Your task to perform on an android device: open app "Microsoft Excel" (install if not already installed), go to login, and select forgot password Image 0: 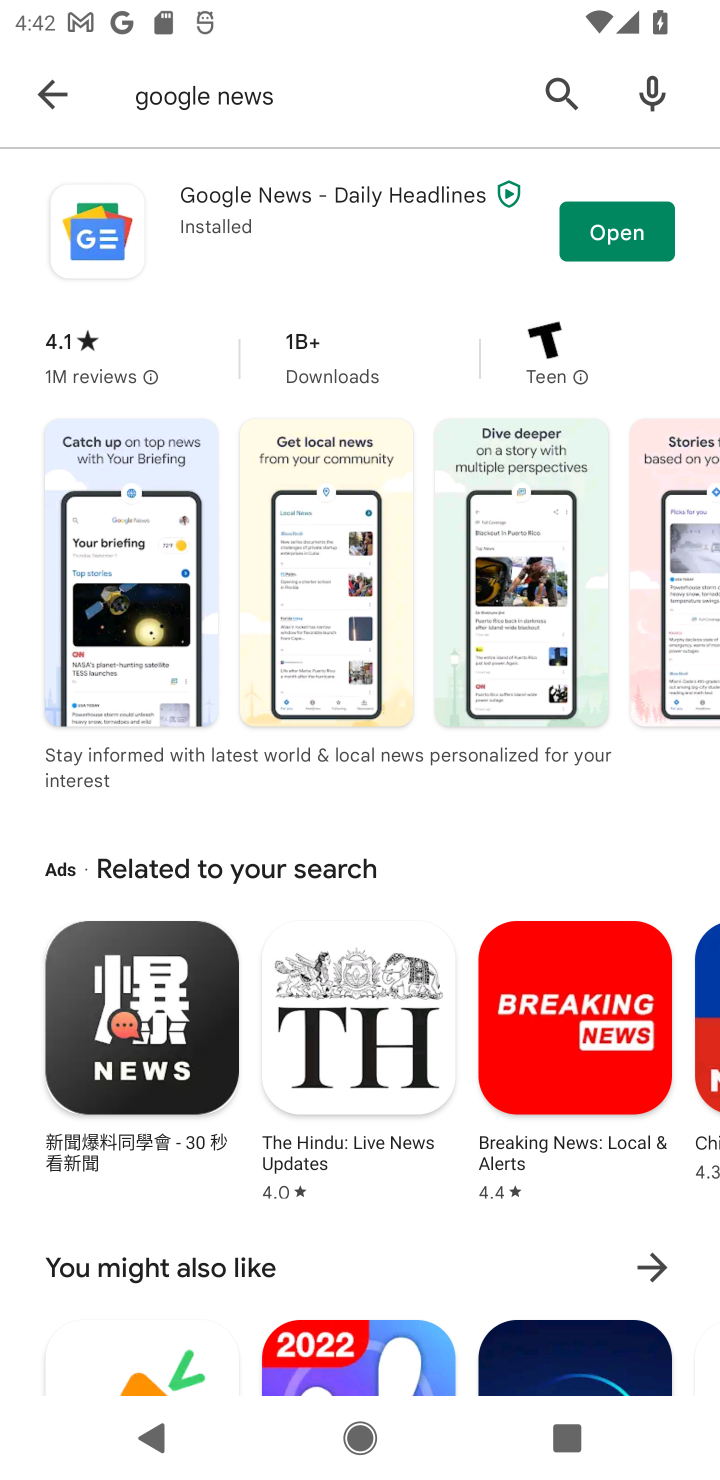
Step 0: press home button
Your task to perform on an android device: open app "Microsoft Excel" (install if not already installed), go to login, and select forgot password Image 1: 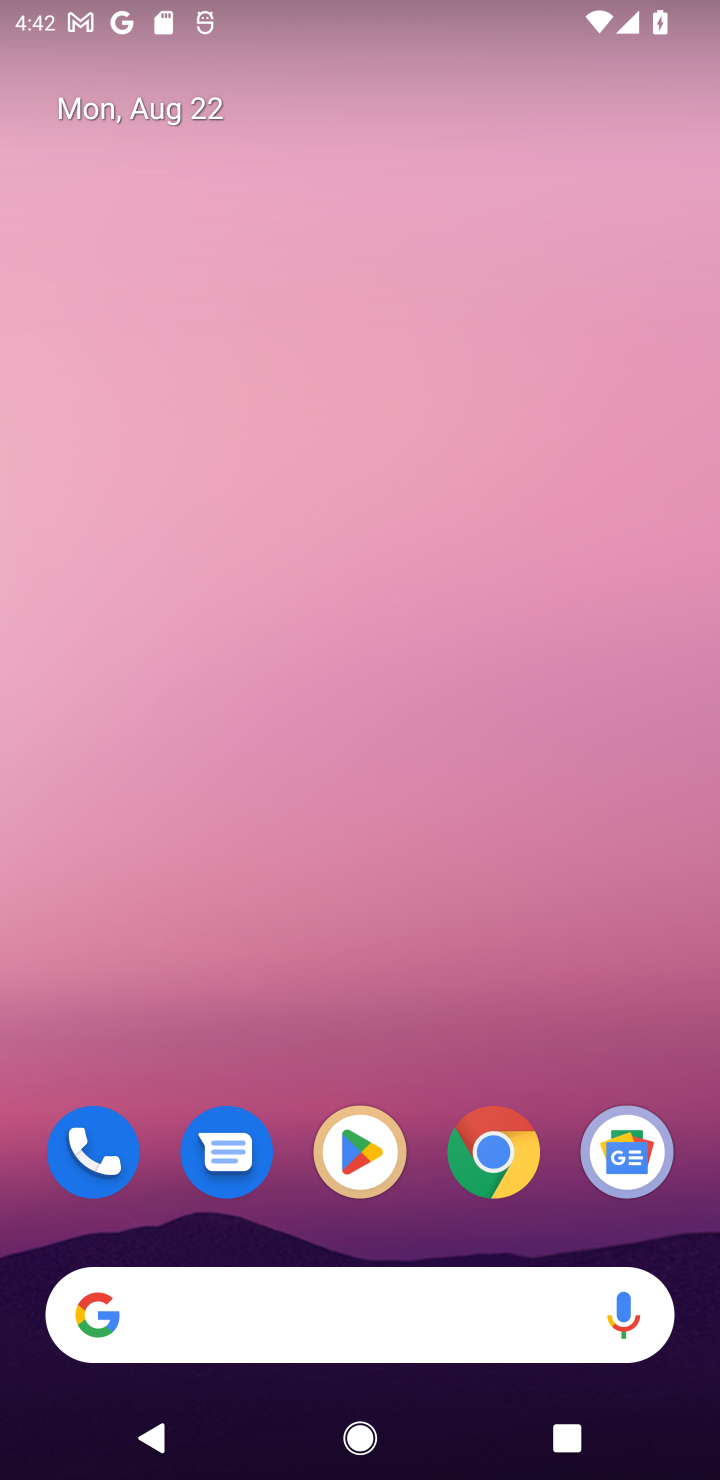
Step 1: click (357, 1185)
Your task to perform on an android device: open app "Microsoft Excel" (install if not already installed), go to login, and select forgot password Image 2: 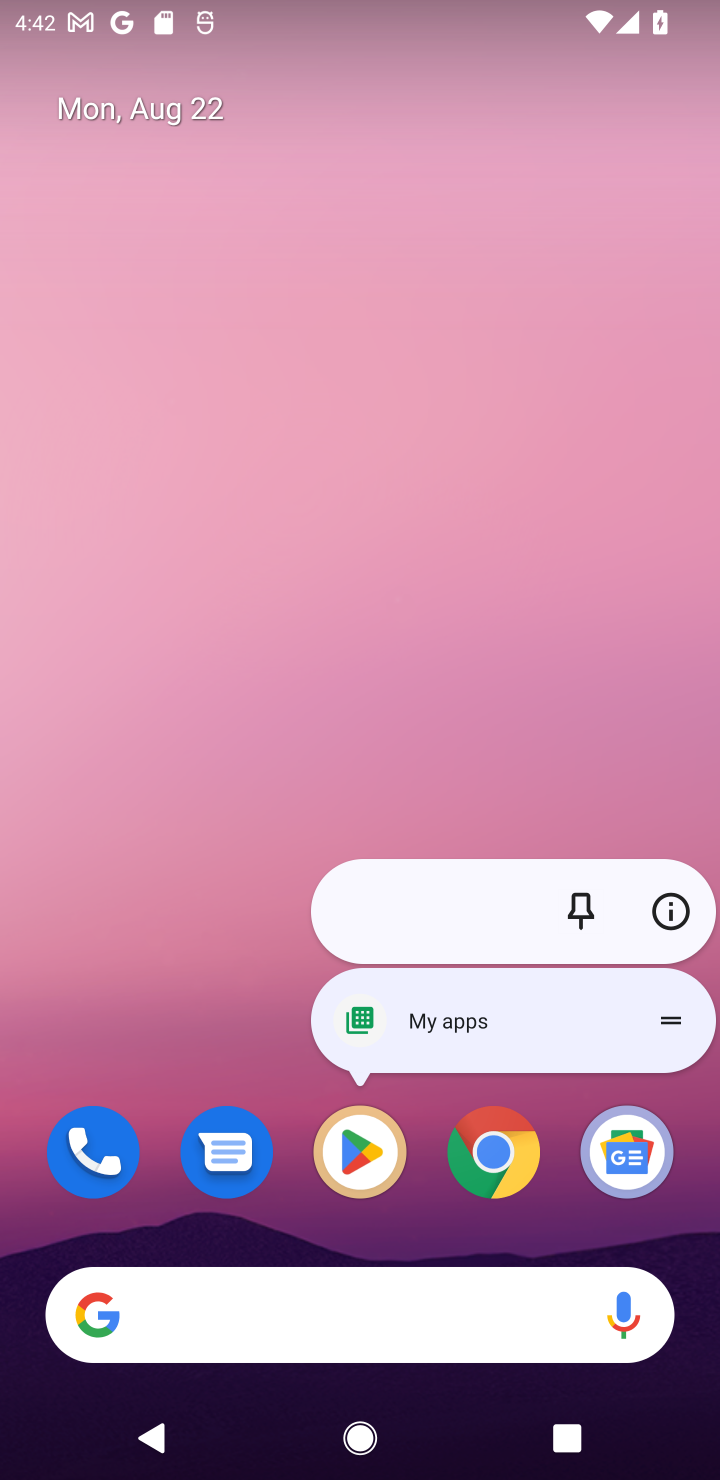
Step 2: click (345, 1138)
Your task to perform on an android device: open app "Microsoft Excel" (install if not already installed), go to login, and select forgot password Image 3: 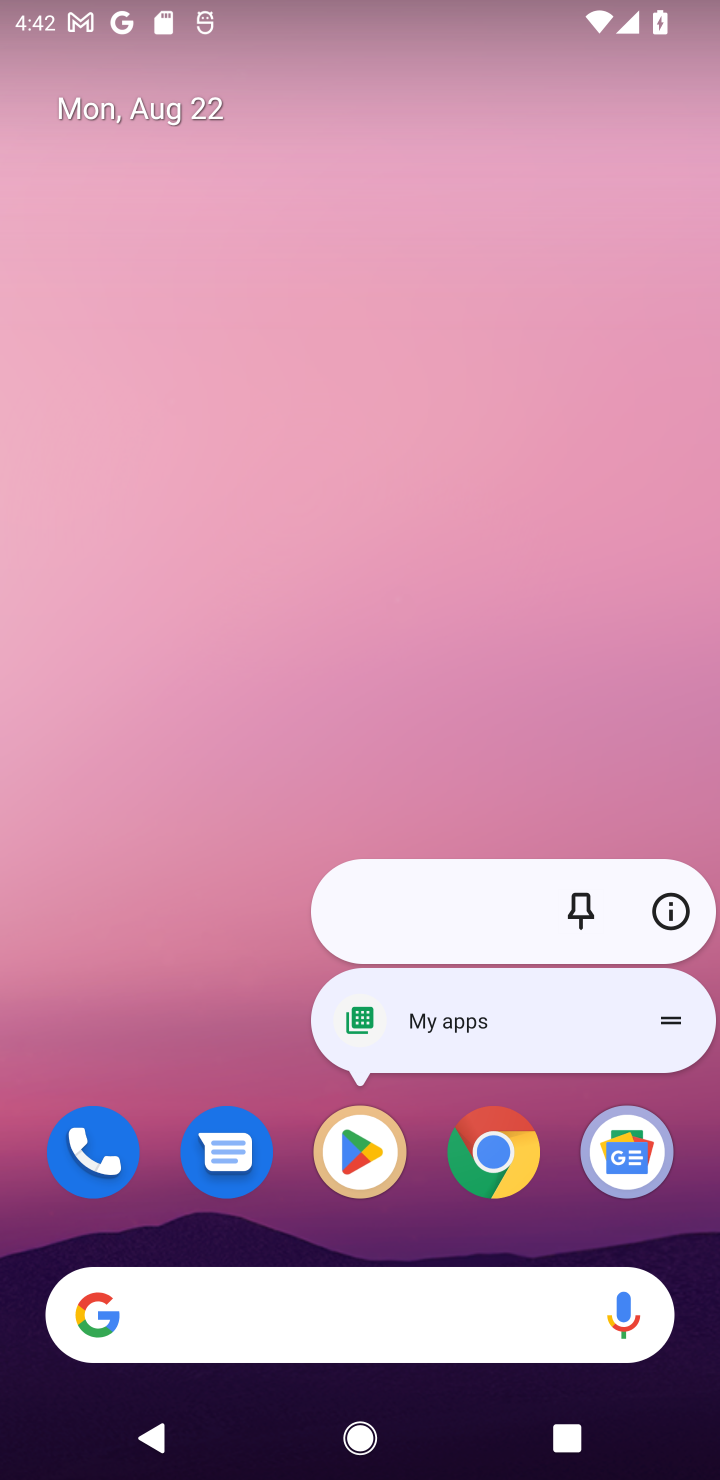
Step 3: click (389, 1177)
Your task to perform on an android device: open app "Microsoft Excel" (install if not already installed), go to login, and select forgot password Image 4: 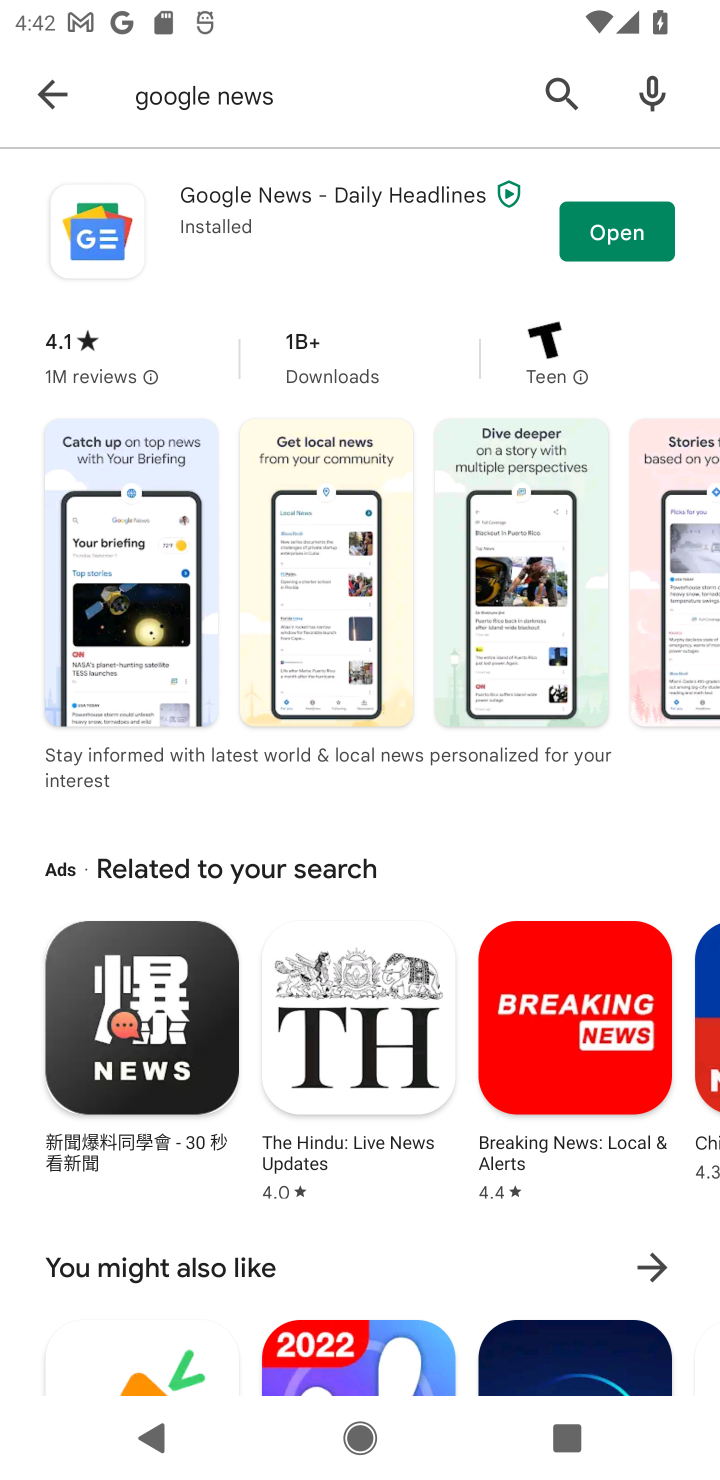
Step 4: click (27, 88)
Your task to perform on an android device: open app "Microsoft Excel" (install if not already installed), go to login, and select forgot password Image 5: 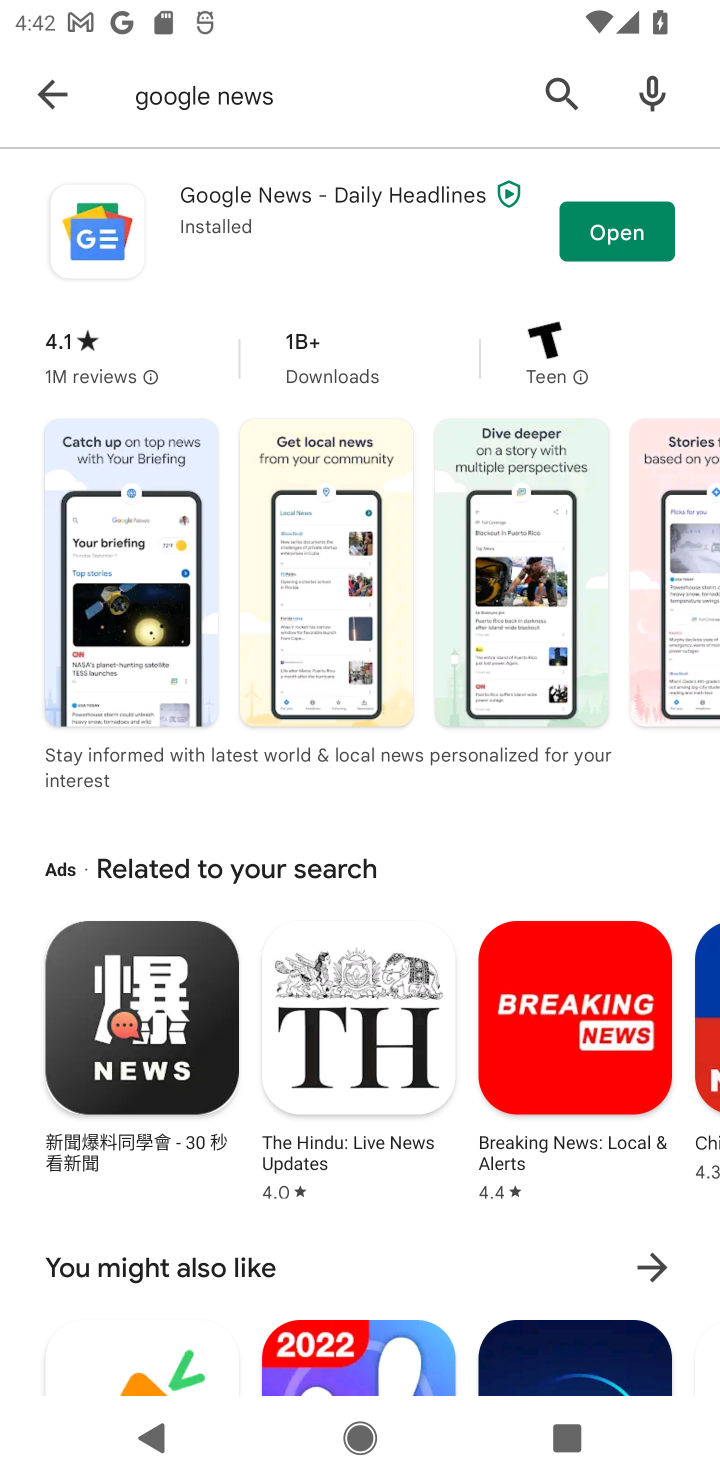
Step 5: click (52, 95)
Your task to perform on an android device: open app "Microsoft Excel" (install if not already installed), go to login, and select forgot password Image 6: 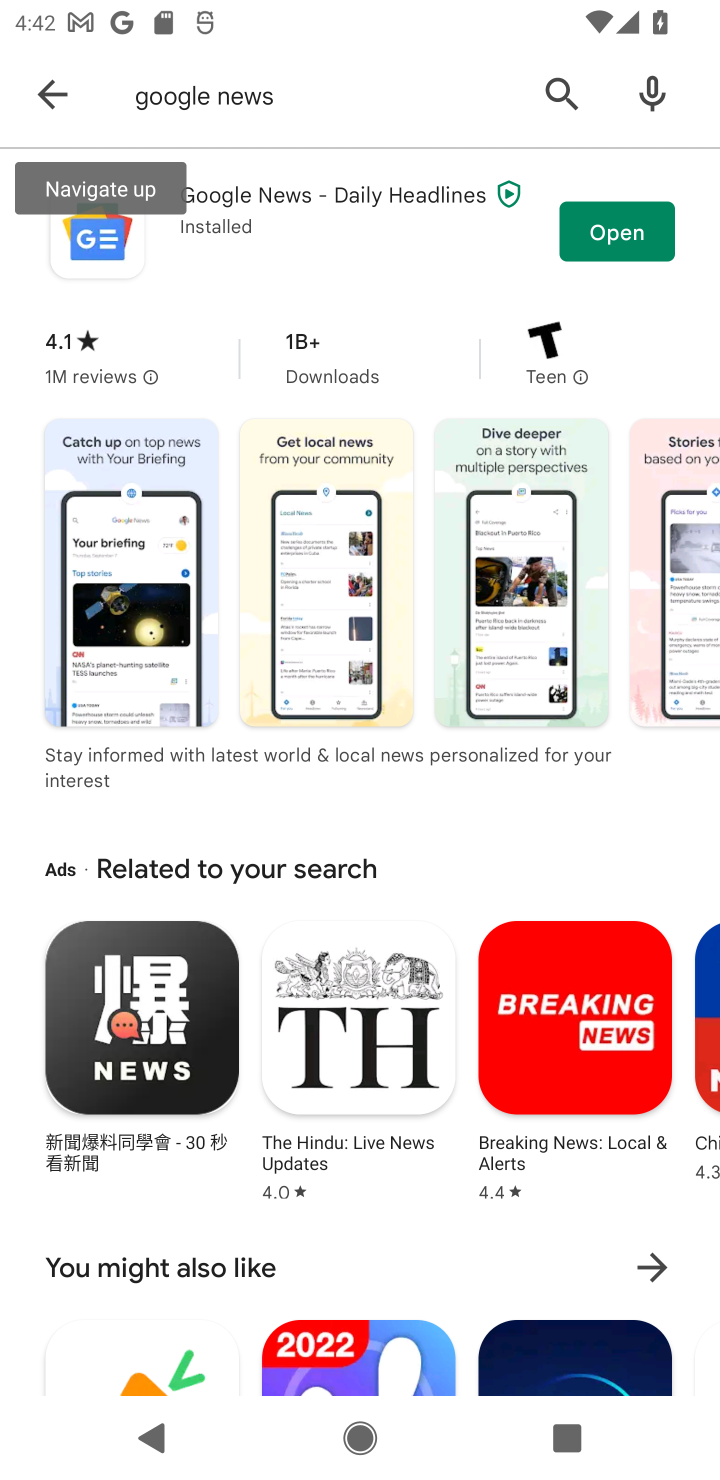
Step 6: click (52, 95)
Your task to perform on an android device: open app "Microsoft Excel" (install if not already installed), go to login, and select forgot password Image 7: 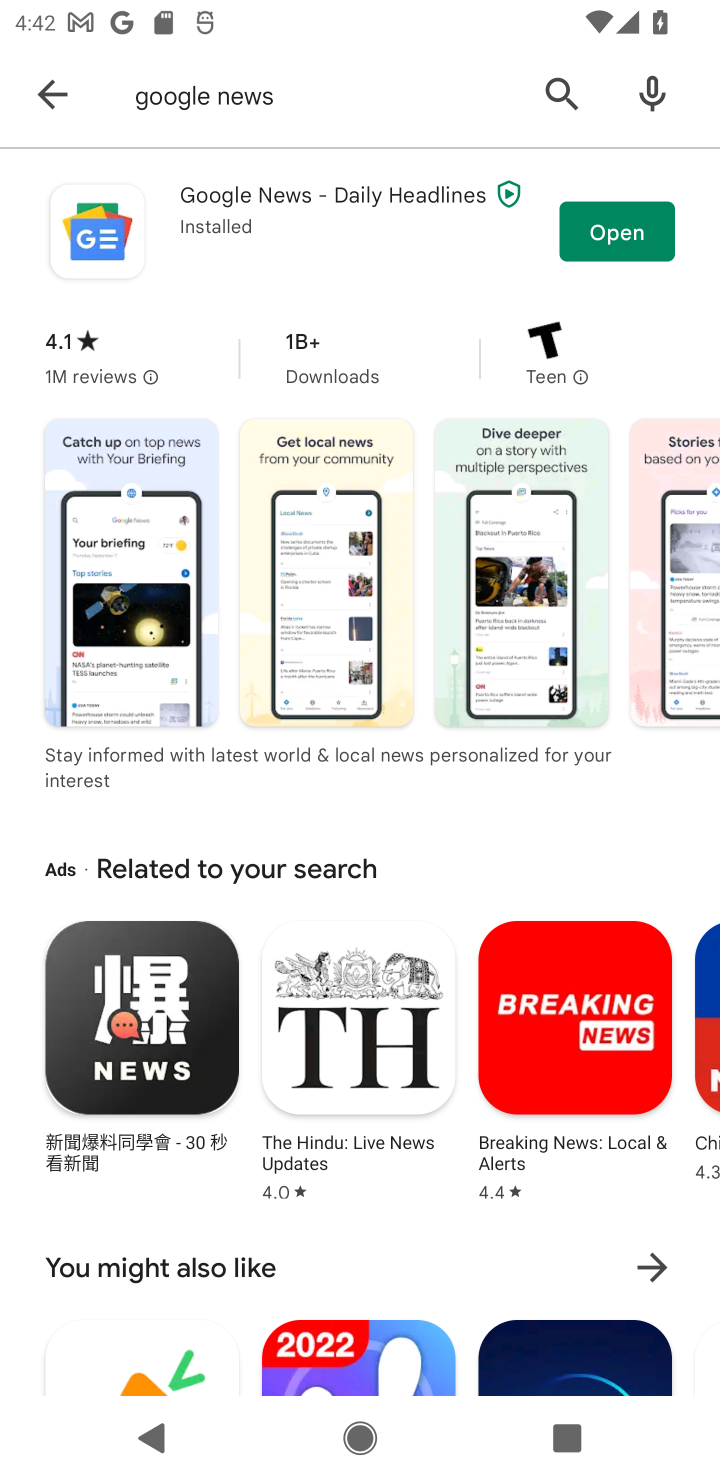
Step 7: click (551, 83)
Your task to perform on an android device: open app "Microsoft Excel" (install if not already installed), go to login, and select forgot password Image 8: 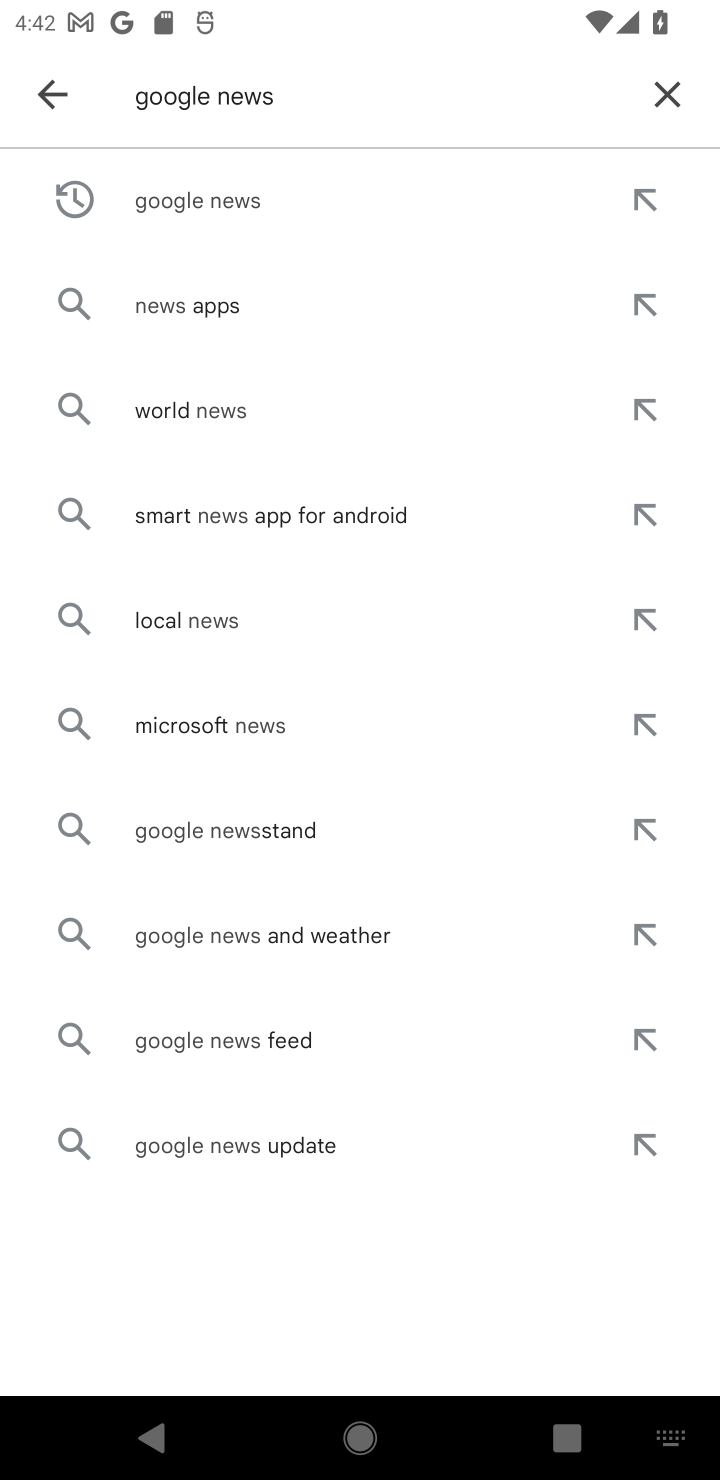
Step 8: click (670, 76)
Your task to perform on an android device: open app "Microsoft Excel" (install if not already installed), go to login, and select forgot password Image 9: 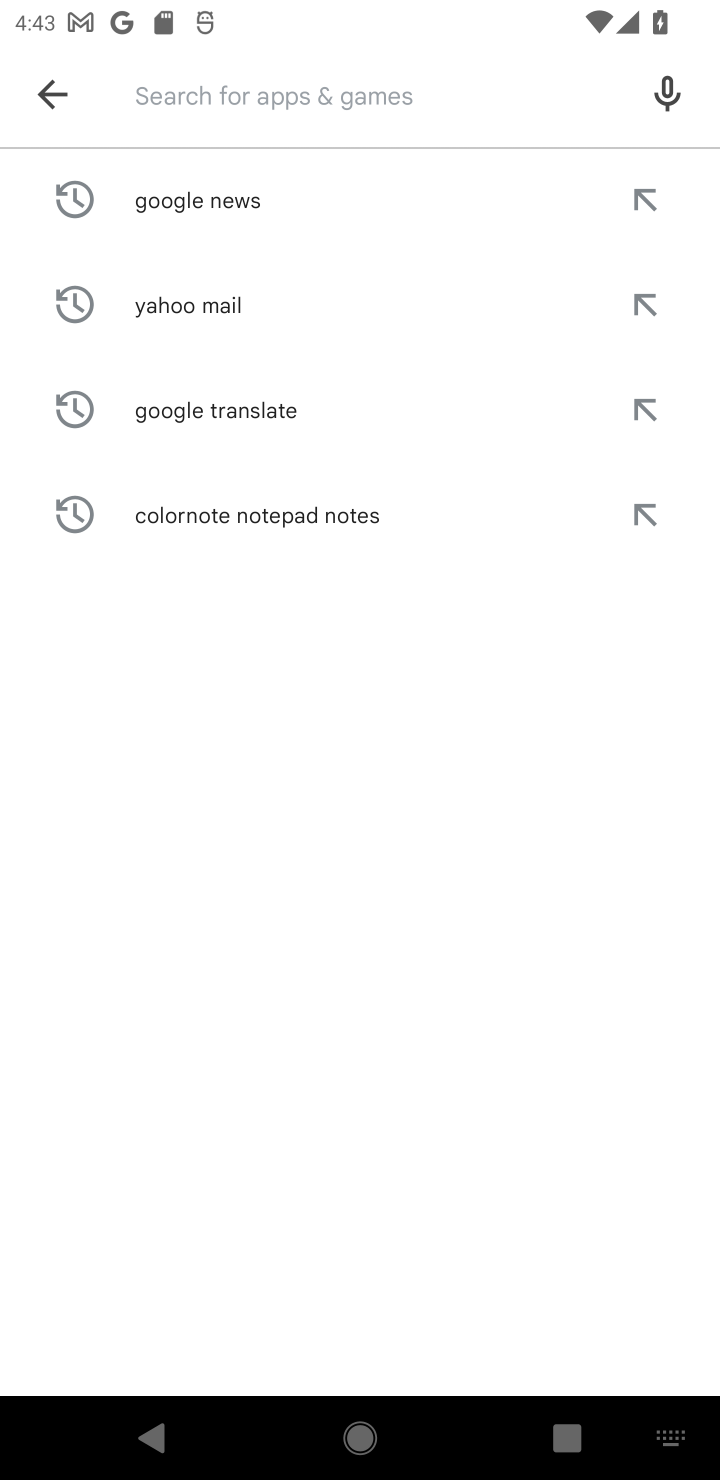
Step 9: type "Microsoft Excel"
Your task to perform on an android device: open app "Microsoft Excel" (install if not already installed), go to login, and select forgot password Image 10: 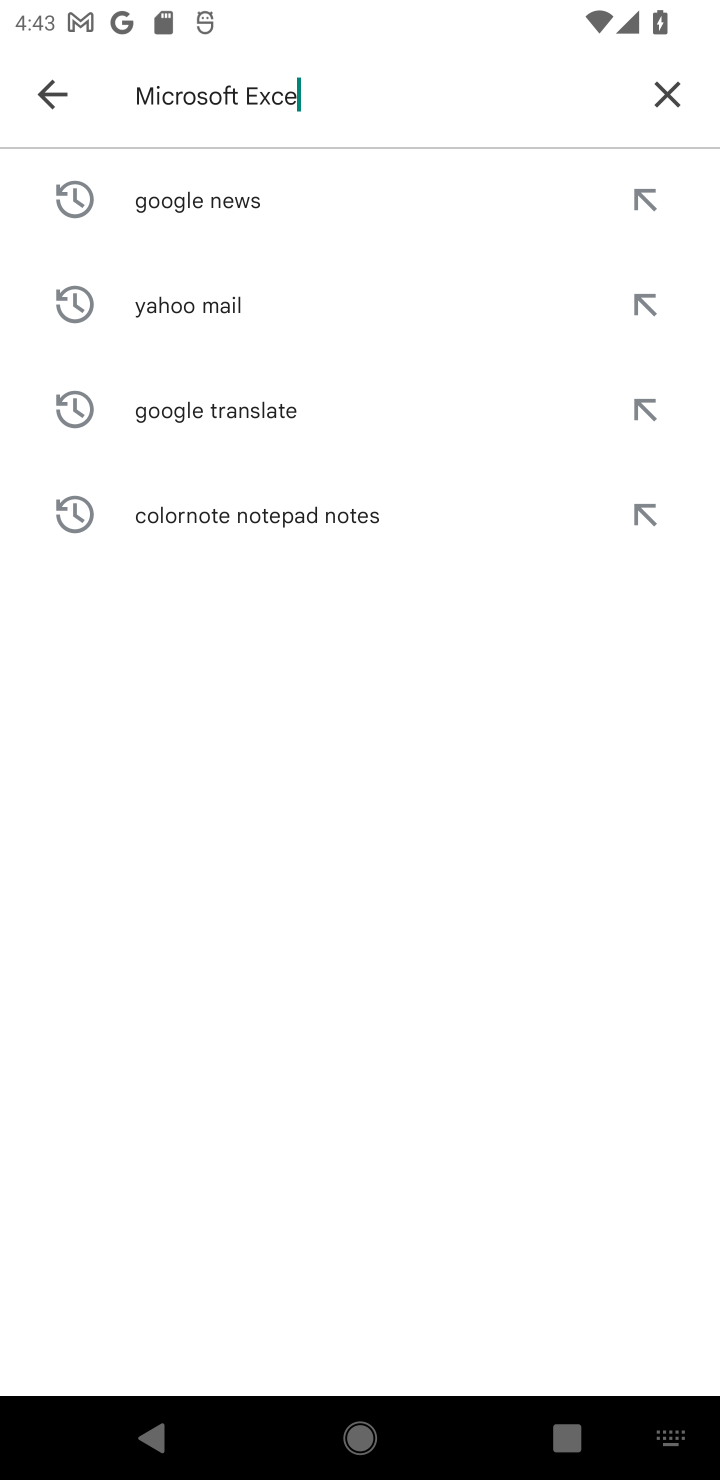
Step 10: type ""
Your task to perform on an android device: open app "Microsoft Excel" (install if not already installed), go to login, and select forgot password Image 11: 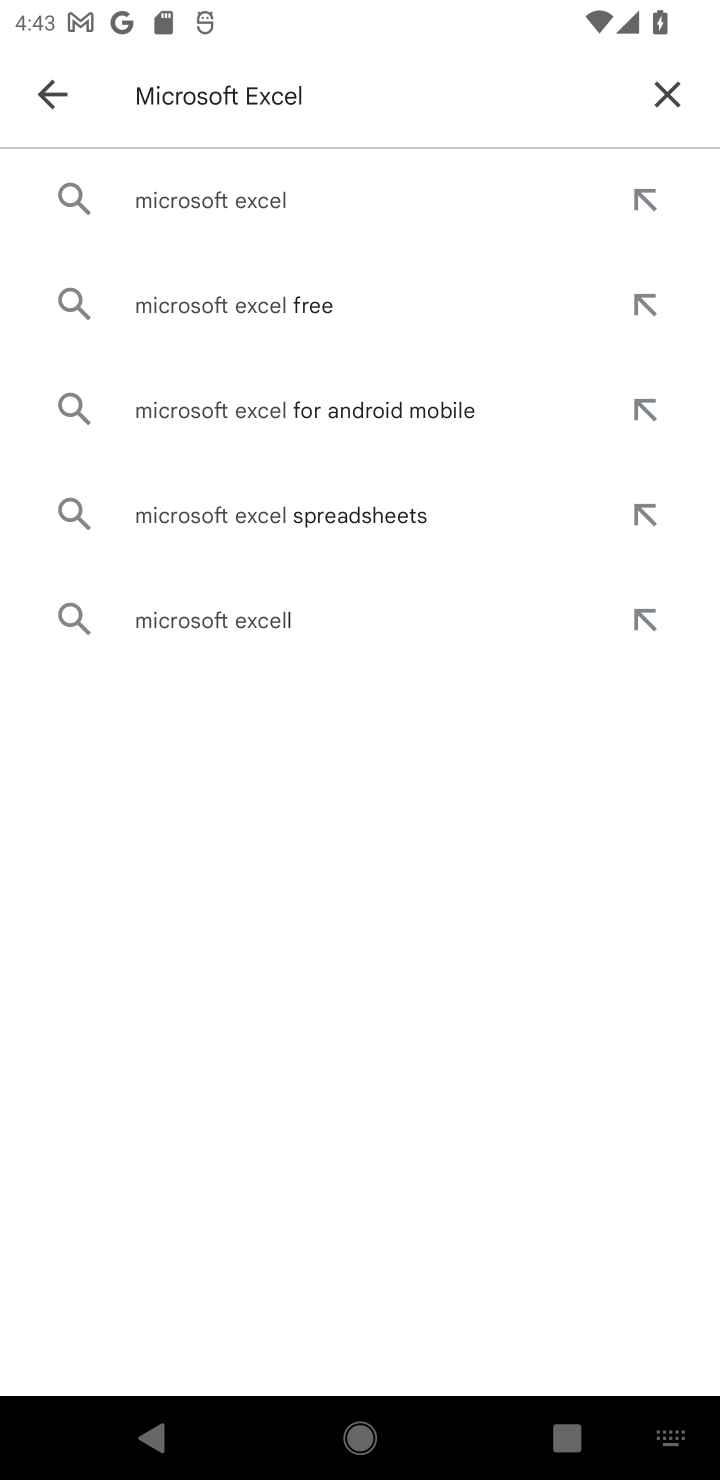
Step 11: click (262, 198)
Your task to perform on an android device: open app "Microsoft Excel" (install if not already installed), go to login, and select forgot password Image 12: 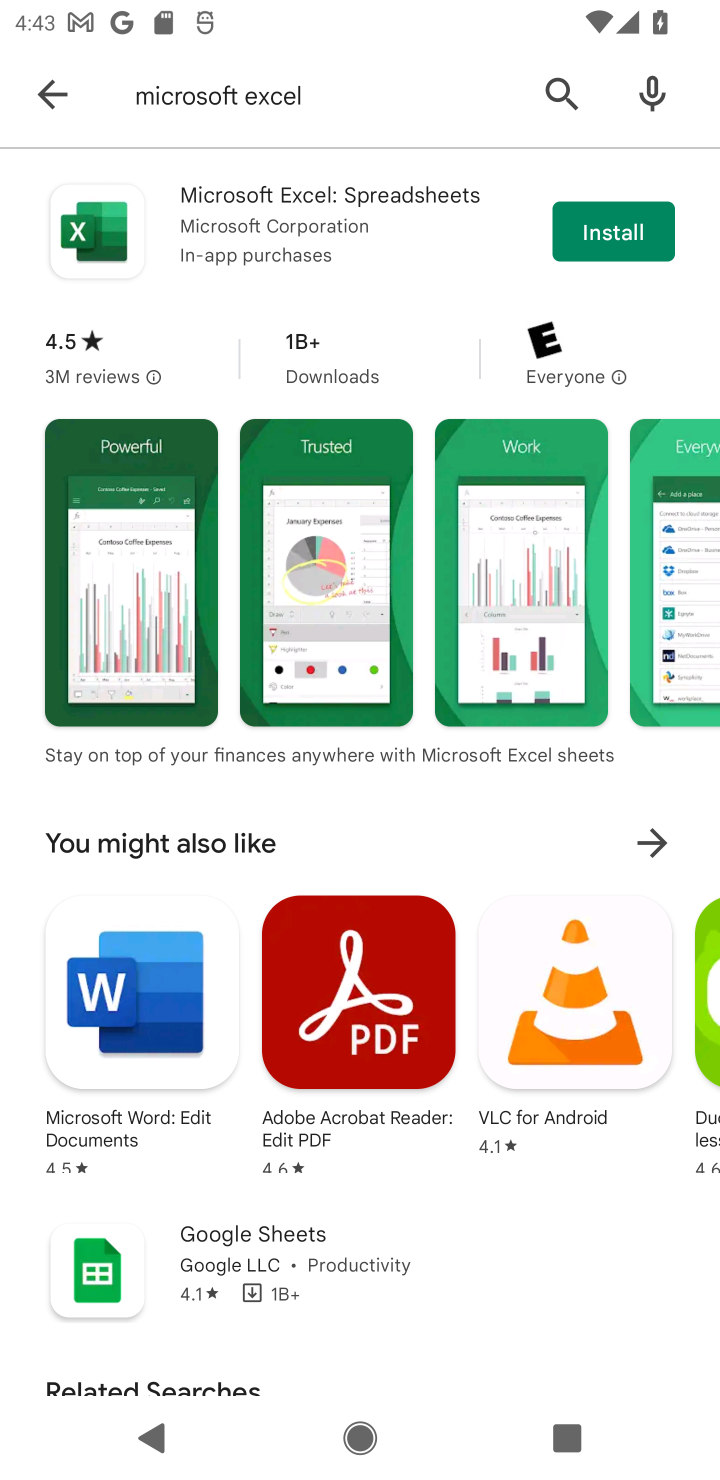
Step 12: click (611, 220)
Your task to perform on an android device: open app "Microsoft Excel" (install if not already installed), go to login, and select forgot password Image 13: 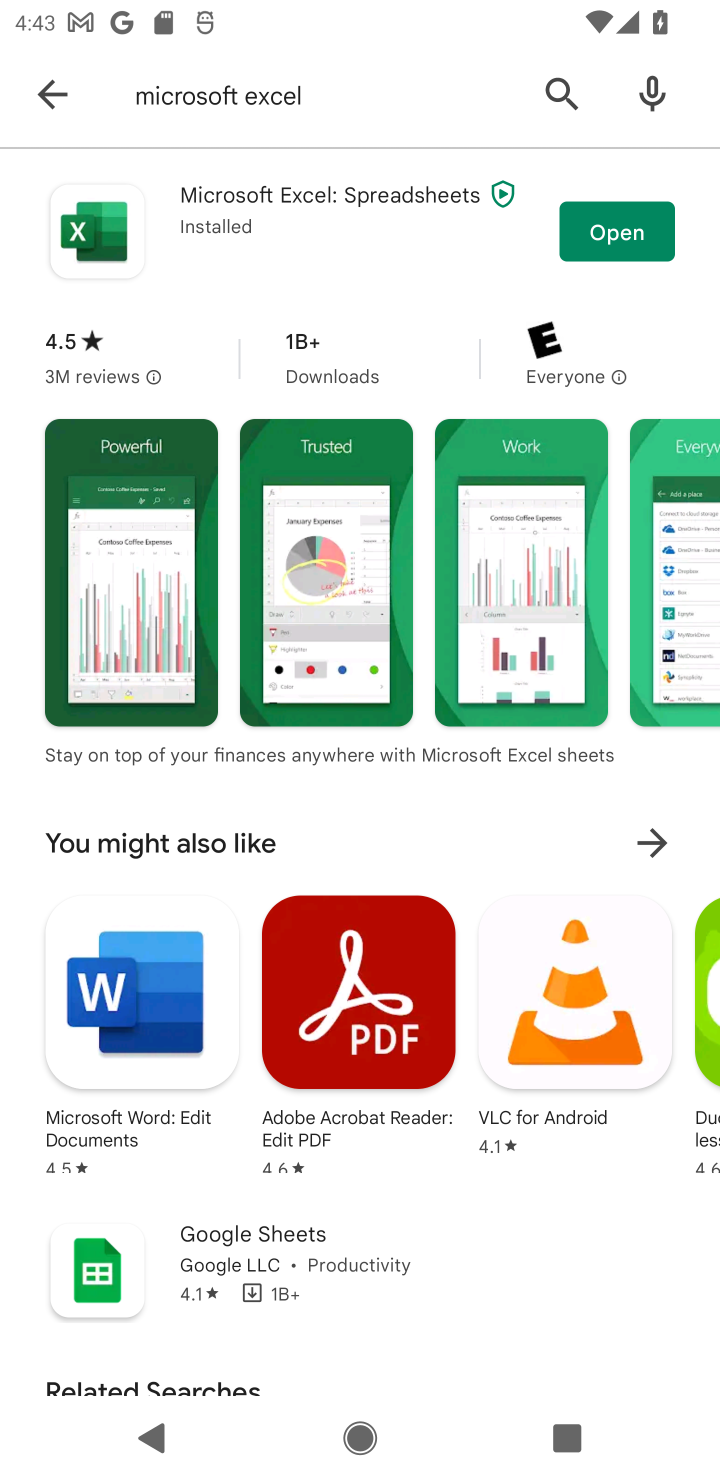
Step 13: click (623, 229)
Your task to perform on an android device: open app "Microsoft Excel" (install if not already installed), go to login, and select forgot password Image 14: 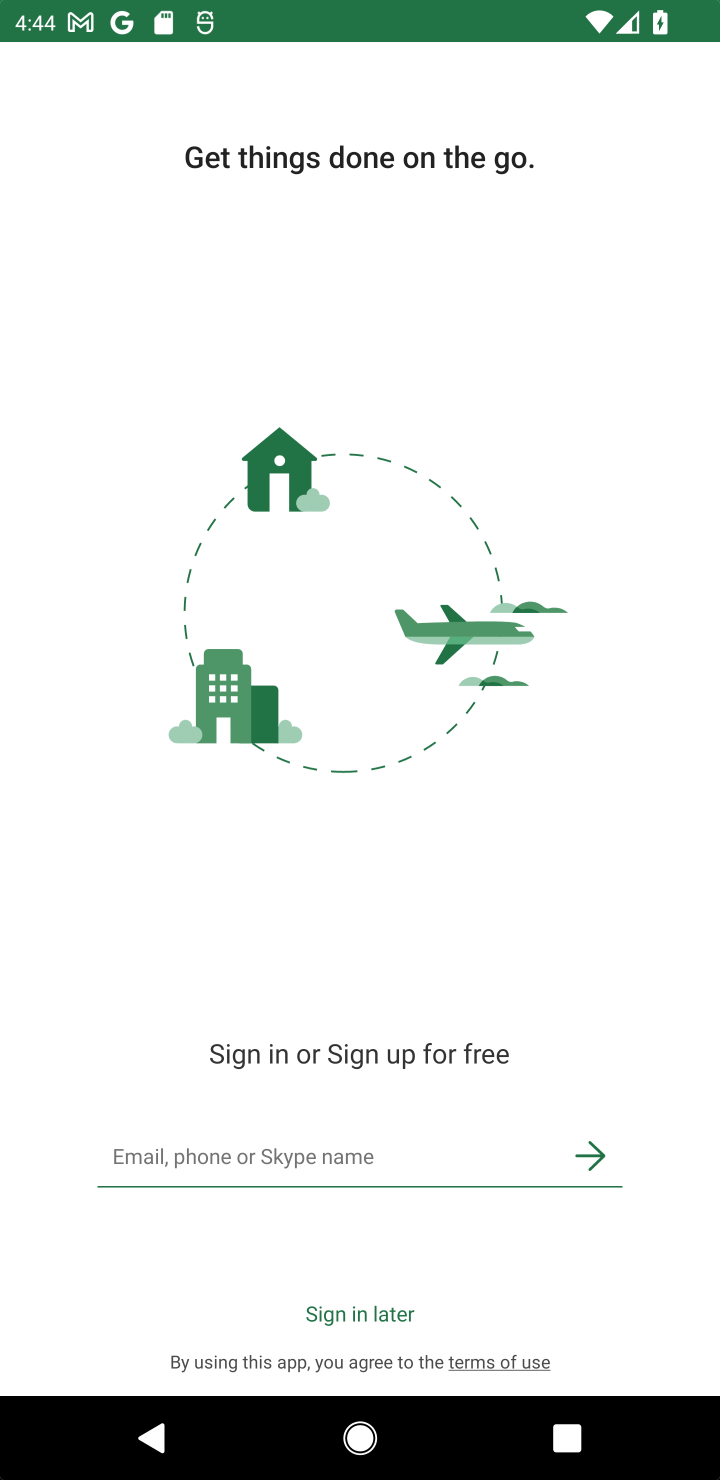
Step 14: task complete